Your task to perform on an android device: Open internet settings Image 0: 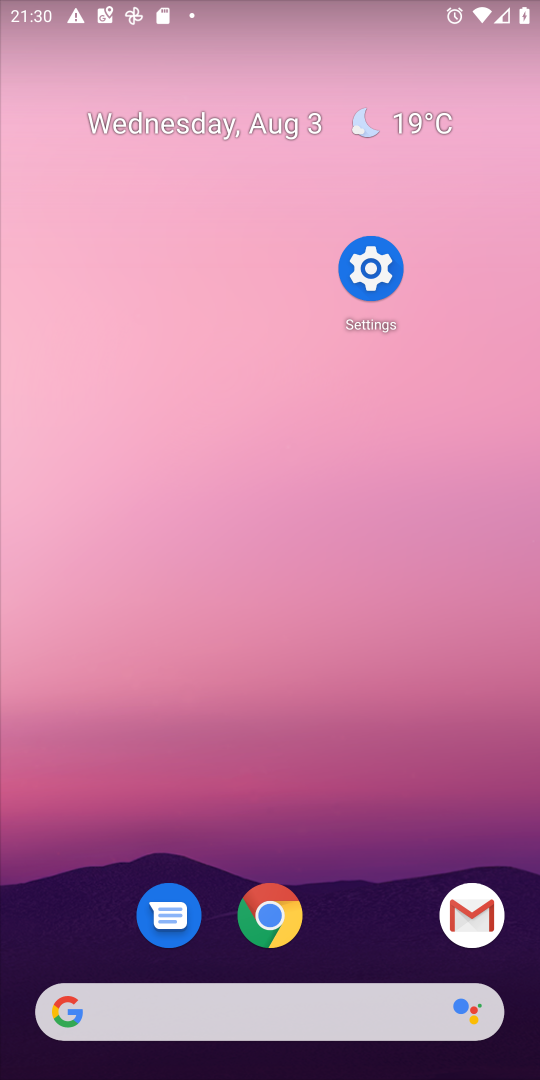
Step 0: press home button
Your task to perform on an android device: Open internet settings Image 1: 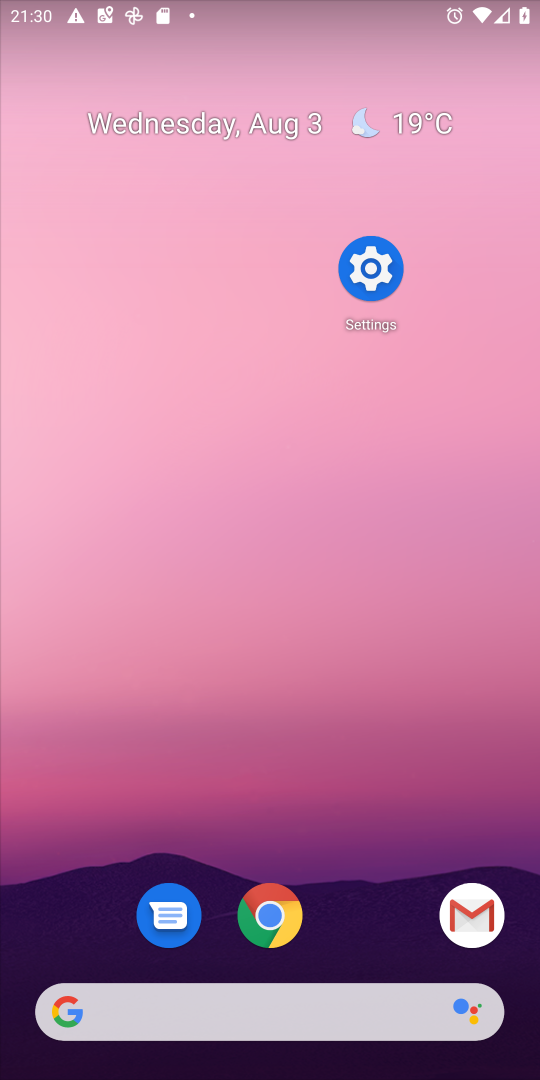
Step 1: drag from (399, 1038) to (351, 216)
Your task to perform on an android device: Open internet settings Image 2: 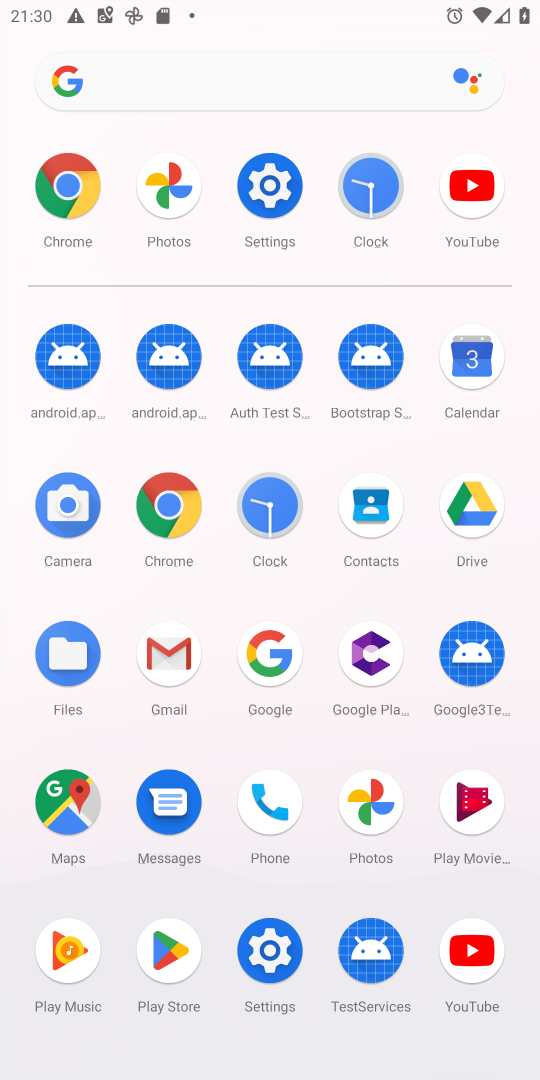
Step 2: click (255, 185)
Your task to perform on an android device: Open internet settings Image 3: 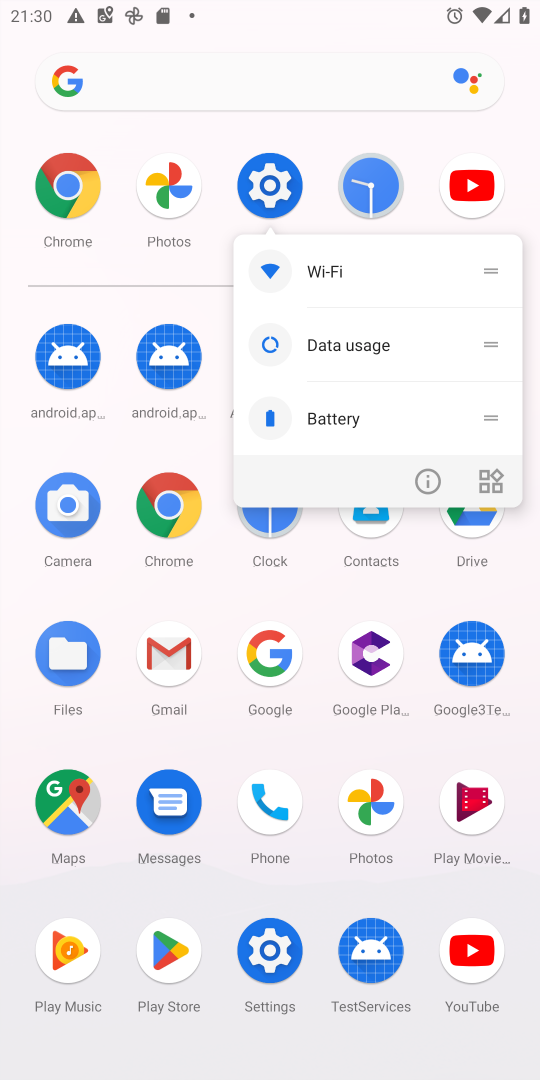
Step 3: click (267, 191)
Your task to perform on an android device: Open internet settings Image 4: 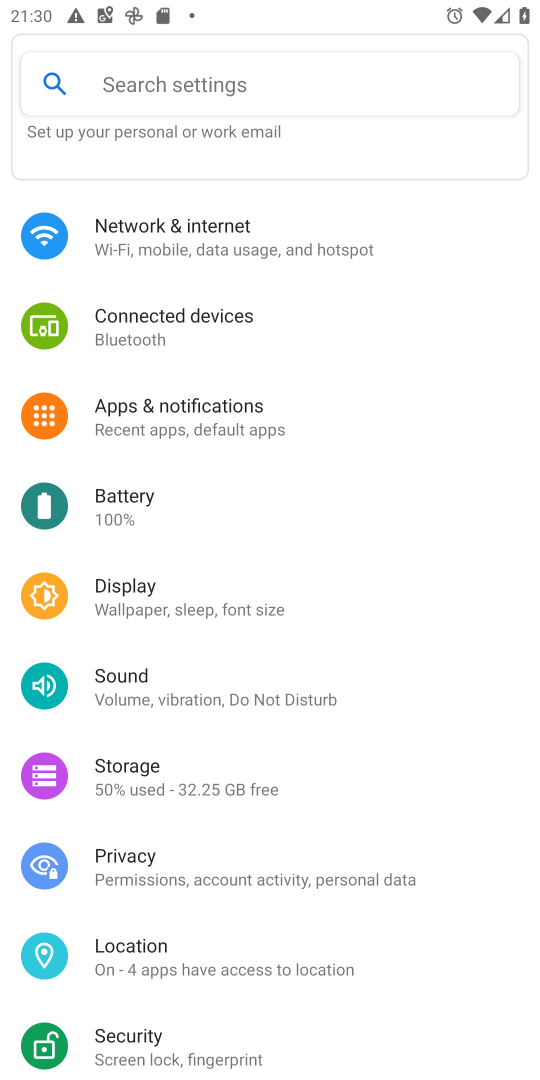
Step 4: click (225, 266)
Your task to perform on an android device: Open internet settings Image 5: 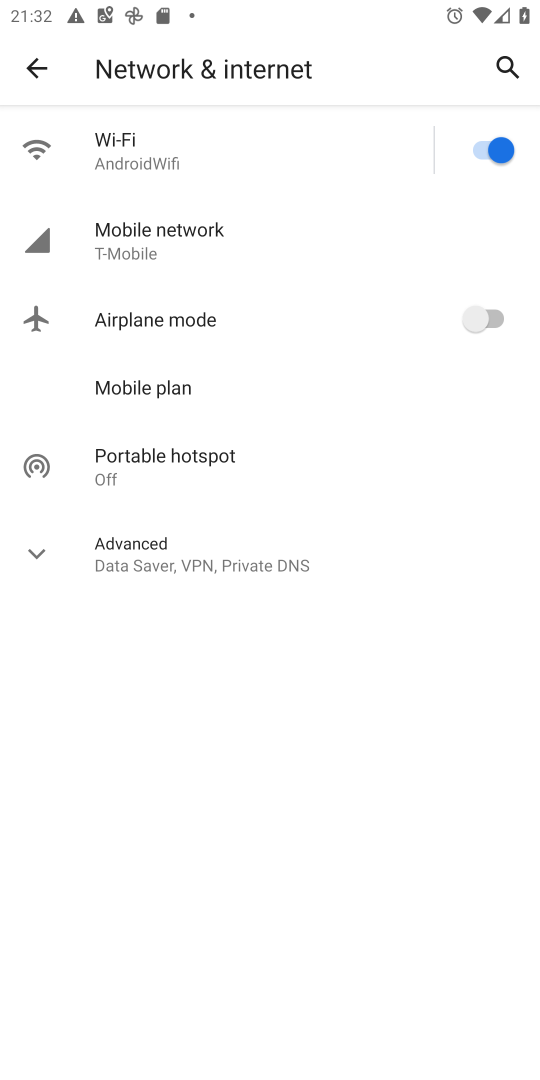
Step 5: task complete